Your task to perform on an android device: Play the last video I watched on Youtube Image 0: 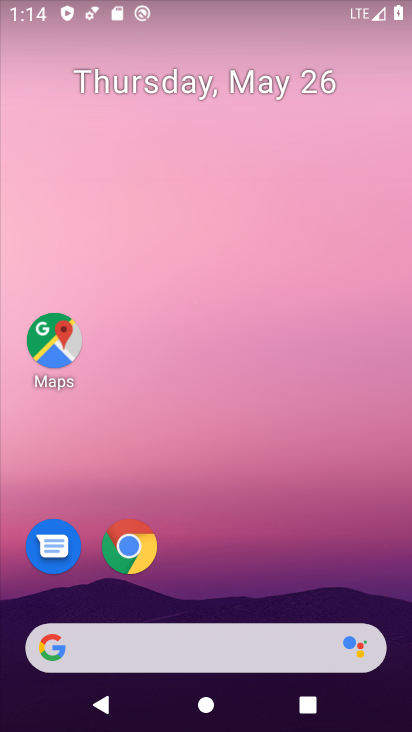
Step 0: drag from (305, 533) to (225, 2)
Your task to perform on an android device: Play the last video I watched on Youtube Image 1: 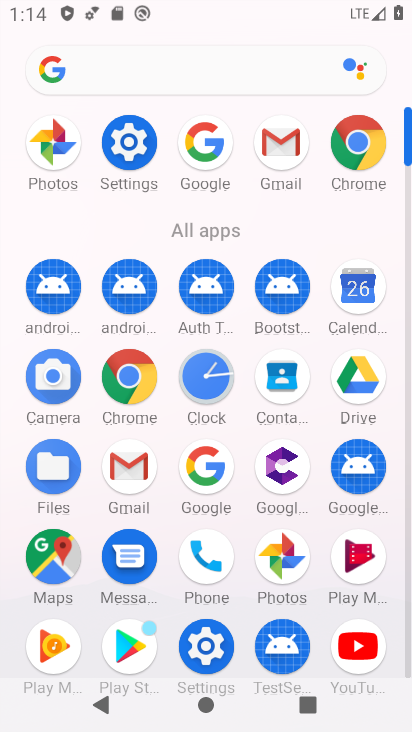
Step 1: click (356, 664)
Your task to perform on an android device: Play the last video I watched on Youtube Image 2: 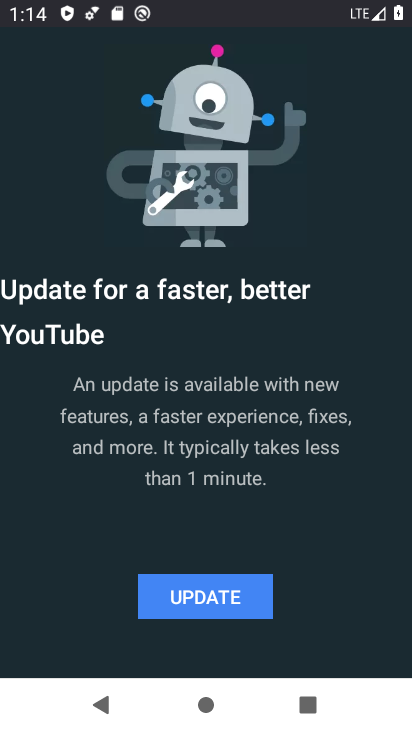
Step 2: click (192, 604)
Your task to perform on an android device: Play the last video I watched on Youtube Image 3: 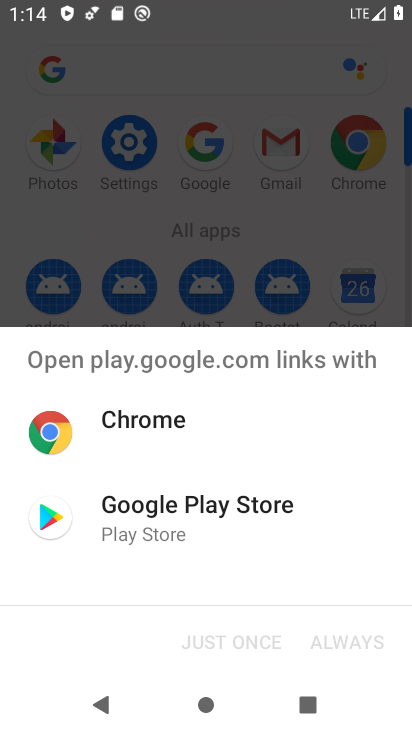
Step 3: click (146, 509)
Your task to perform on an android device: Play the last video I watched on Youtube Image 4: 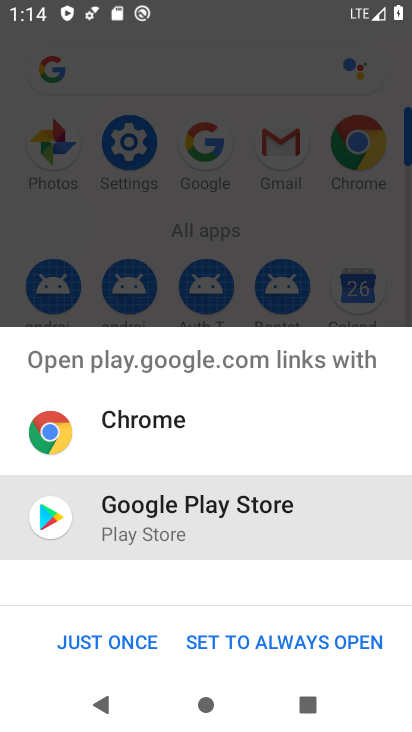
Step 4: click (152, 641)
Your task to perform on an android device: Play the last video I watched on Youtube Image 5: 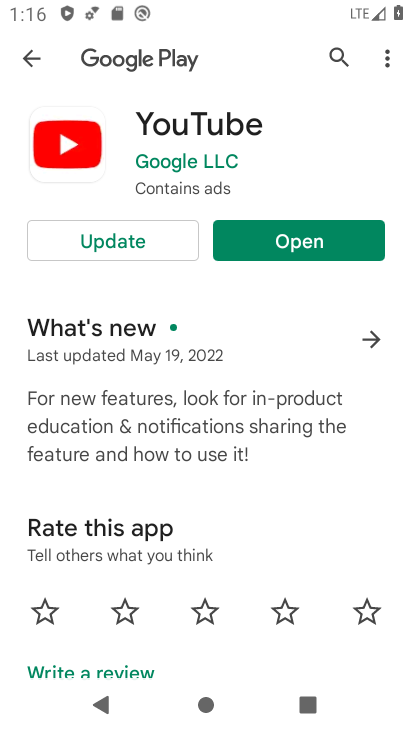
Step 5: click (101, 241)
Your task to perform on an android device: Play the last video I watched on Youtube Image 6: 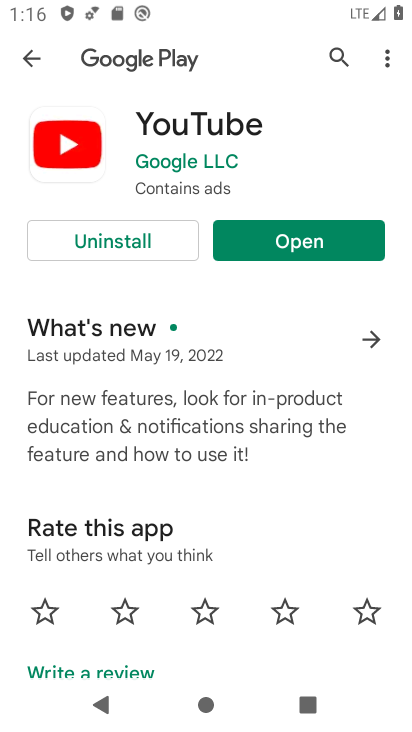
Step 6: click (239, 238)
Your task to perform on an android device: Play the last video I watched on Youtube Image 7: 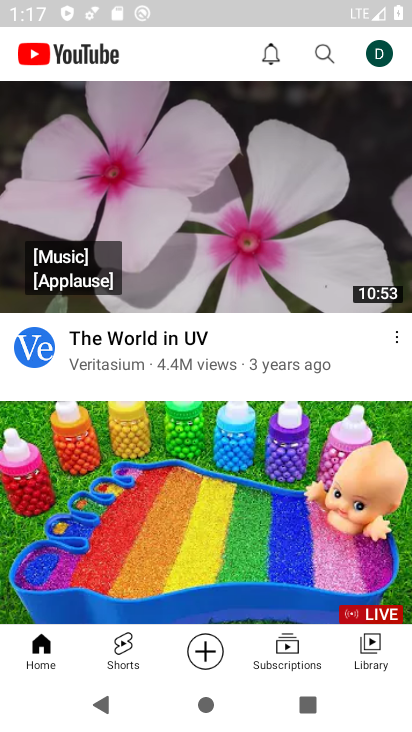
Step 7: click (365, 665)
Your task to perform on an android device: Play the last video I watched on Youtube Image 8: 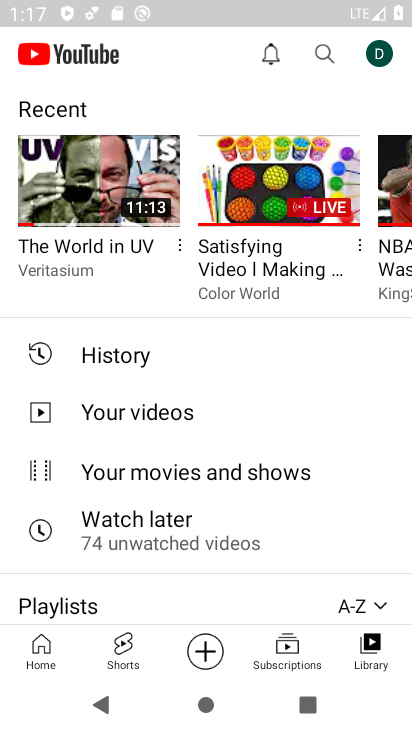
Step 8: click (72, 172)
Your task to perform on an android device: Play the last video I watched on Youtube Image 9: 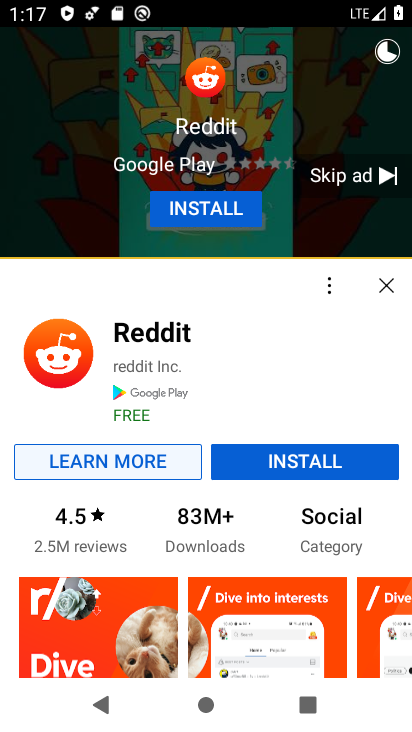
Step 9: click (401, 172)
Your task to perform on an android device: Play the last video I watched on Youtube Image 10: 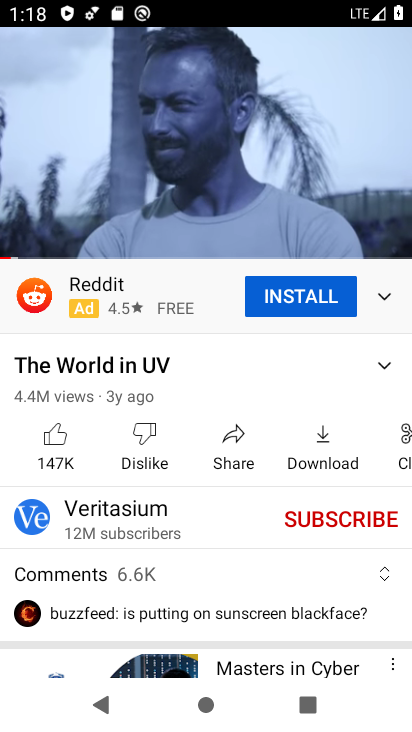
Step 10: click (198, 126)
Your task to perform on an android device: Play the last video I watched on Youtube Image 11: 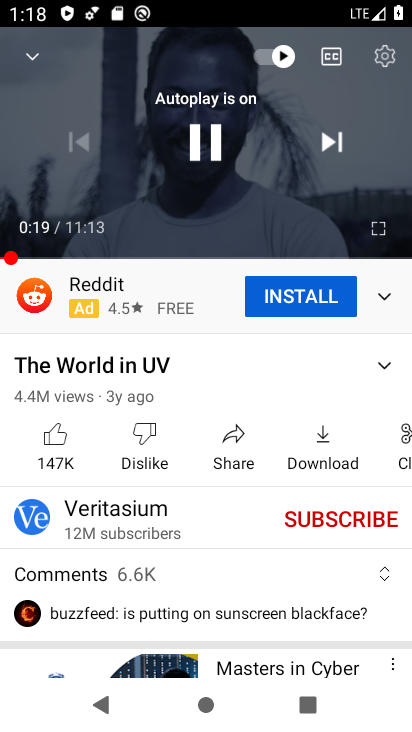
Step 11: click (198, 127)
Your task to perform on an android device: Play the last video I watched on Youtube Image 12: 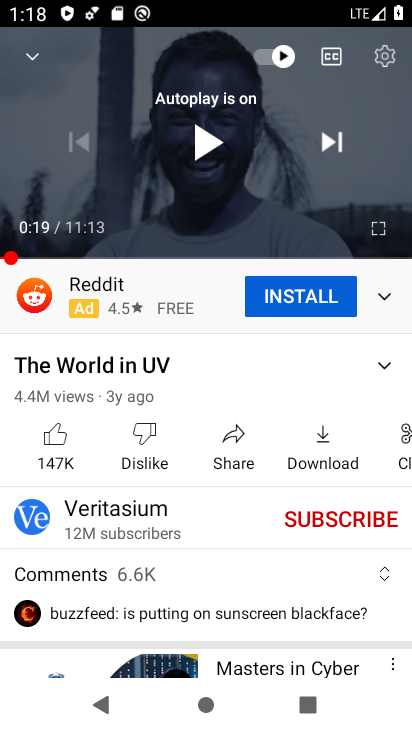
Step 12: task complete